Your task to perform on an android device: create a new album in the google photos Image 0: 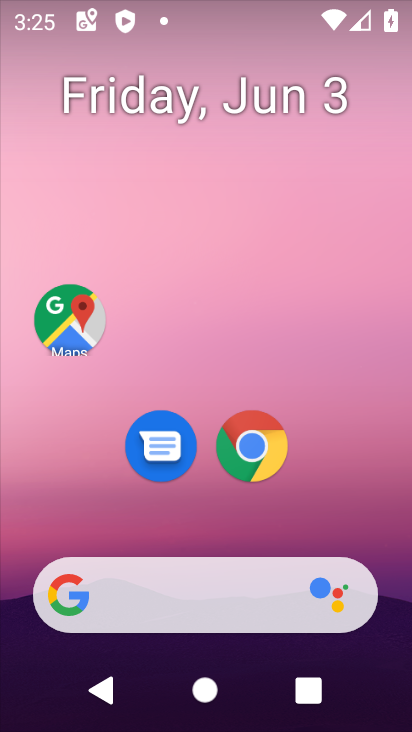
Step 0: drag from (344, 449) to (275, 58)
Your task to perform on an android device: create a new album in the google photos Image 1: 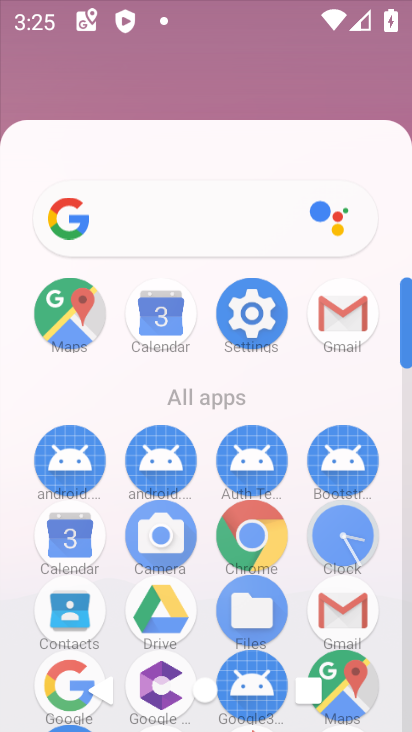
Step 1: task complete